Your task to perform on an android device: Turn off the flashlight Image 0: 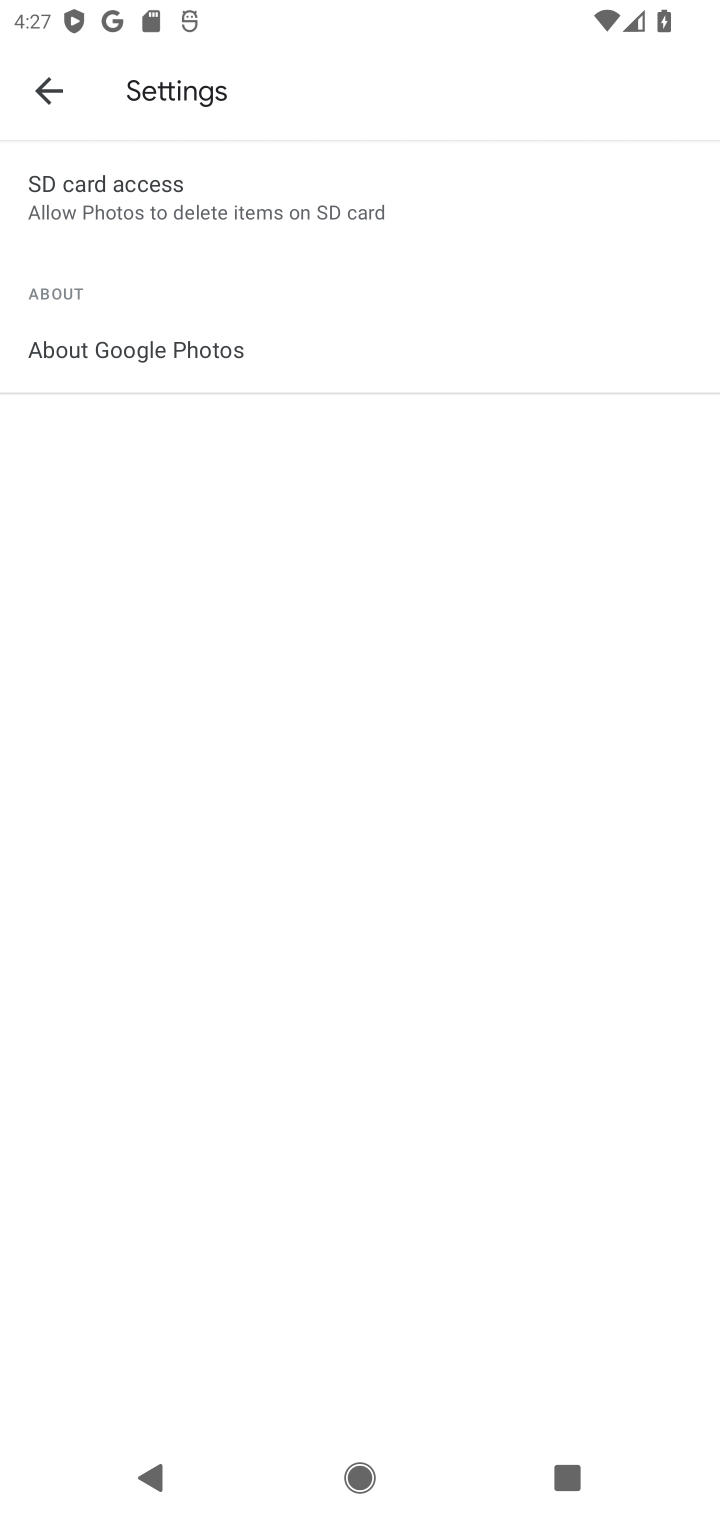
Step 0: press home button
Your task to perform on an android device: Turn off the flashlight Image 1: 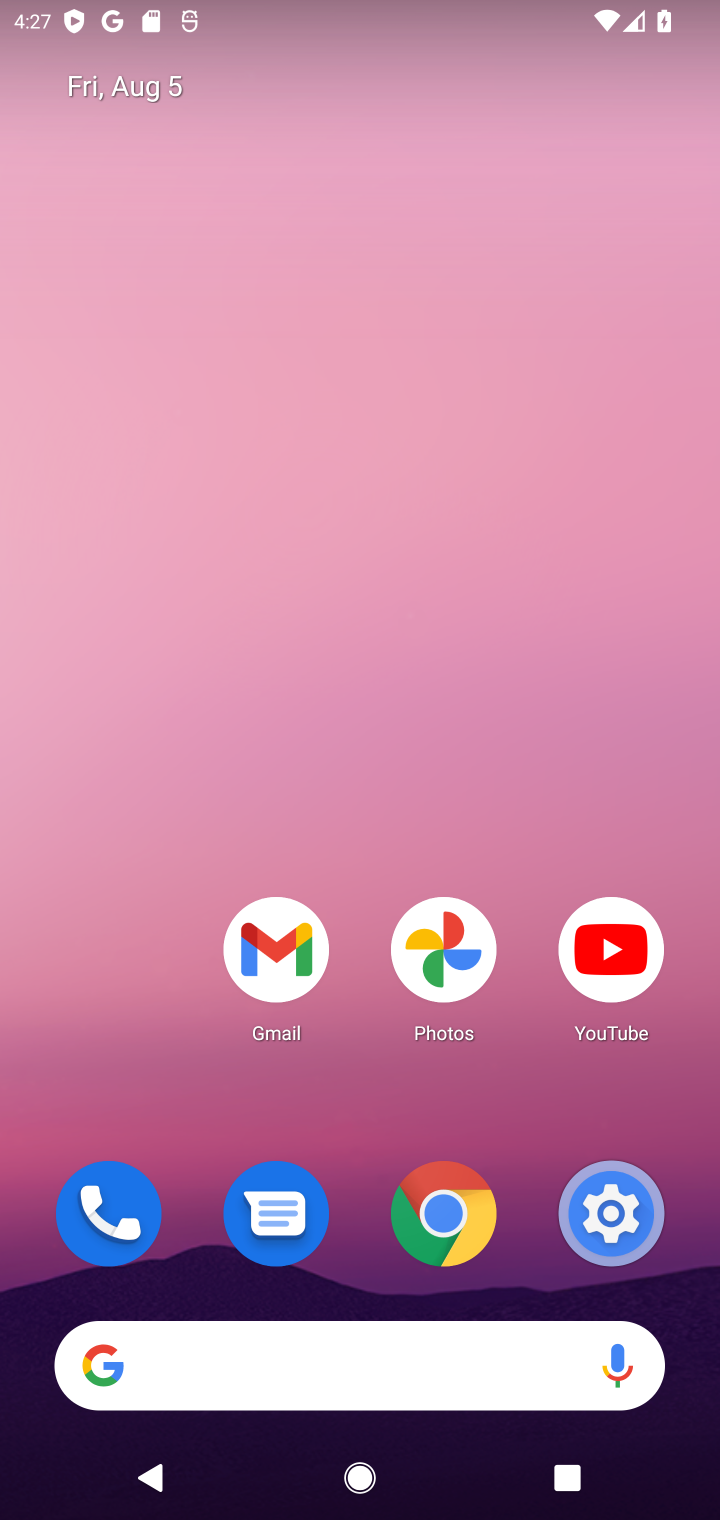
Step 1: task complete